Your task to perform on an android device: change notification settings in the gmail app Image 0: 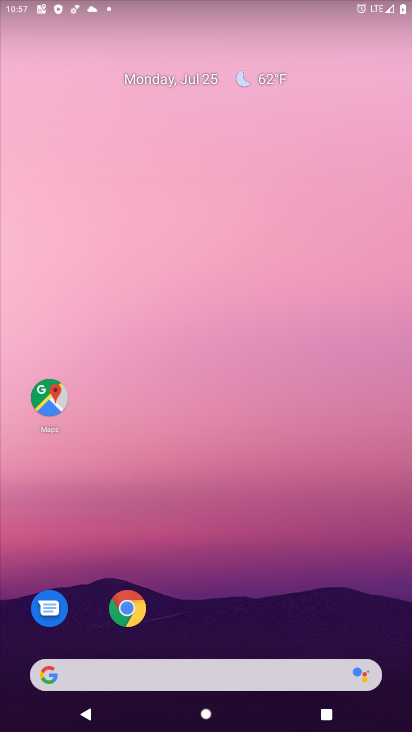
Step 0: drag from (209, 629) to (248, 58)
Your task to perform on an android device: change notification settings in the gmail app Image 1: 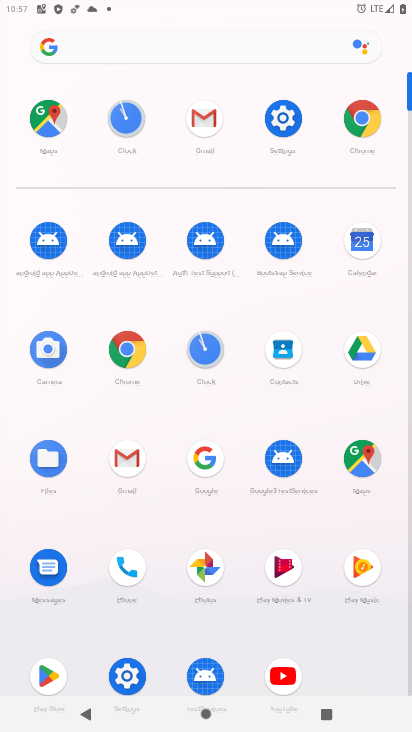
Step 1: click (133, 469)
Your task to perform on an android device: change notification settings in the gmail app Image 2: 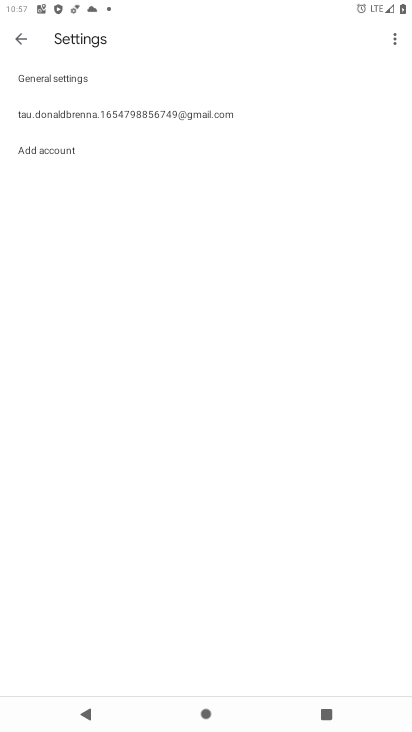
Step 2: click (74, 78)
Your task to perform on an android device: change notification settings in the gmail app Image 3: 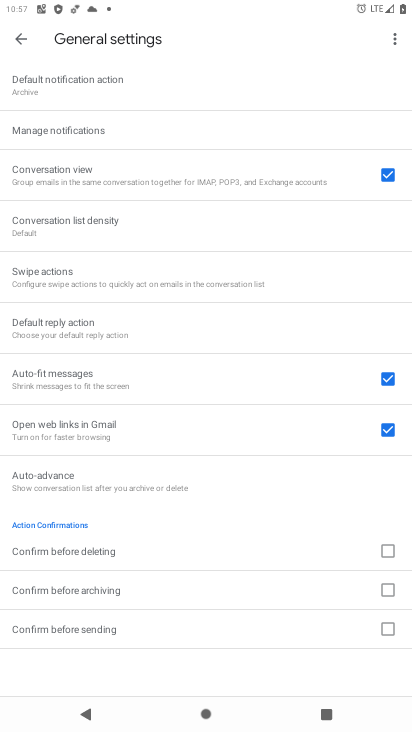
Step 3: click (89, 131)
Your task to perform on an android device: change notification settings in the gmail app Image 4: 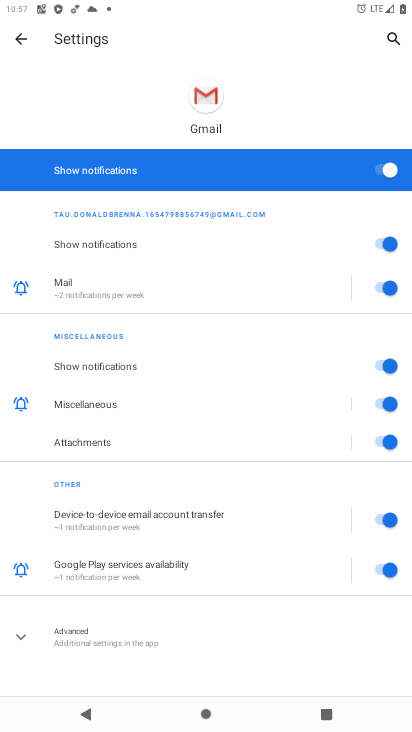
Step 4: click (364, 172)
Your task to perform on an android device: change notification settings in the gmail app Image 5: 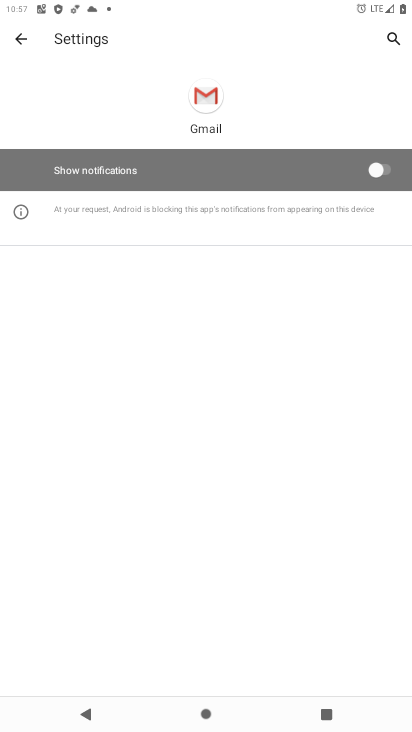
Step 5: task complete